Your task to perform on an android device: change the clock display to analog Image 0: 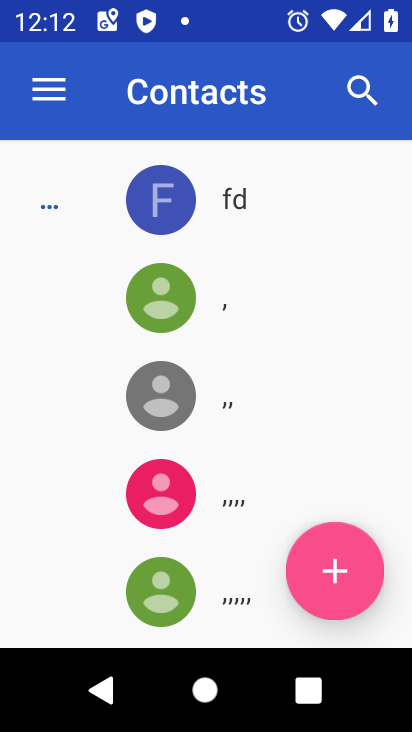
Step 0: press home button
Your task to perform on an android device: change the clock display to analog Image 1: 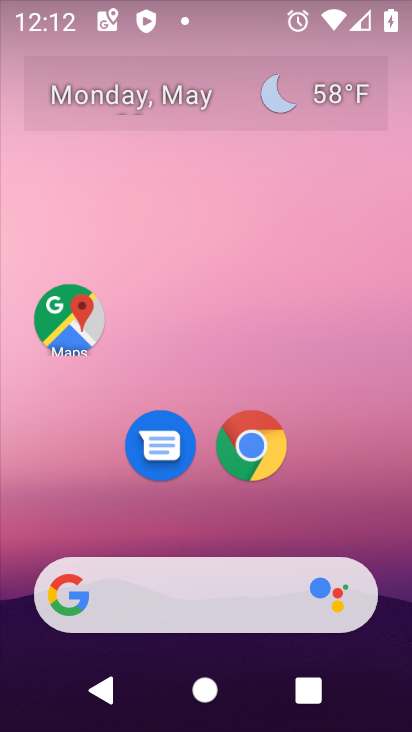
Step 1: drag from (207, 525) to (182, 5)
Your task to perform on an android device: change the clock display to analog Image 2: 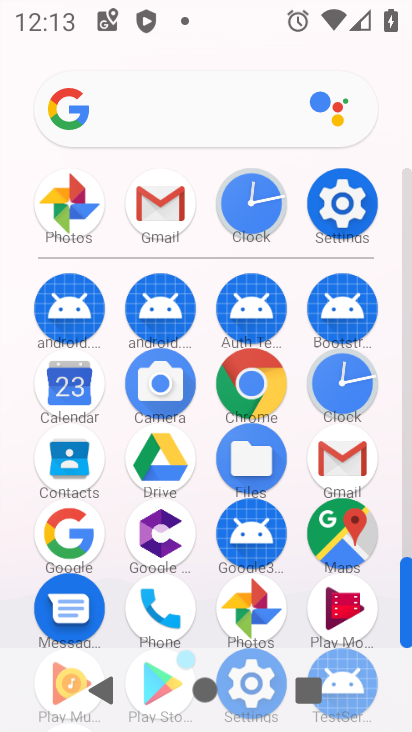
Step 2: click (338, 376)
Your task to perform on an android device: change the clock display to analog Image 3: 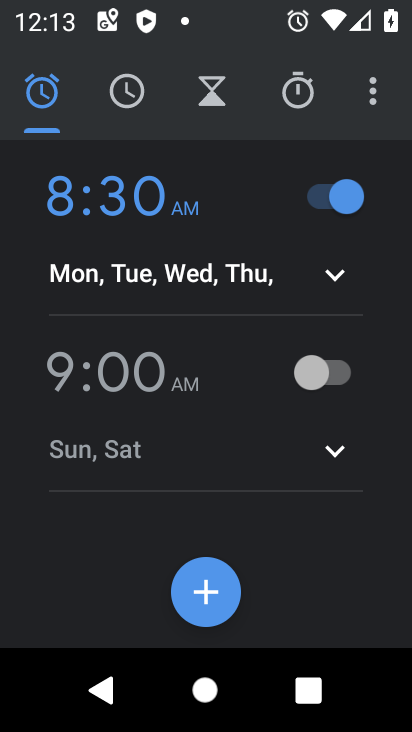
Step 3: click (377, 90)
Your task to perform on an android device: change the clock display to analog Image 4: 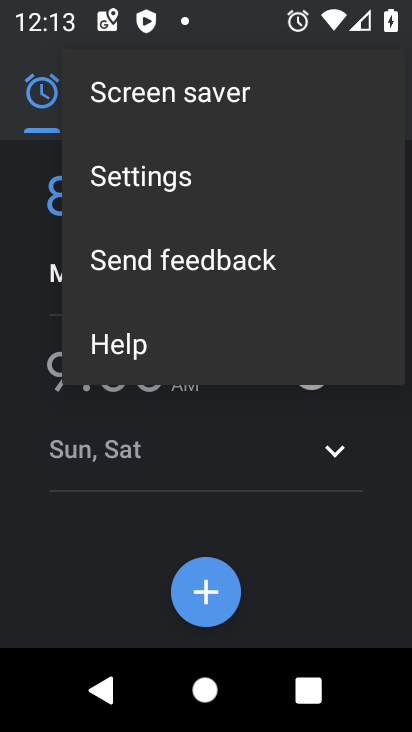
Step 4: click (220, 169)
Your task to perform on an android device: change the clock display to analog Image 5: 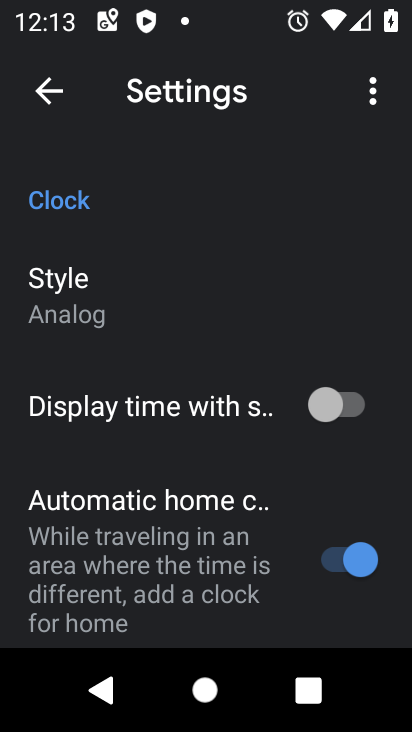
Step 5: task complete